Your task to perform on an android device: change alarm snooze length Image 0: 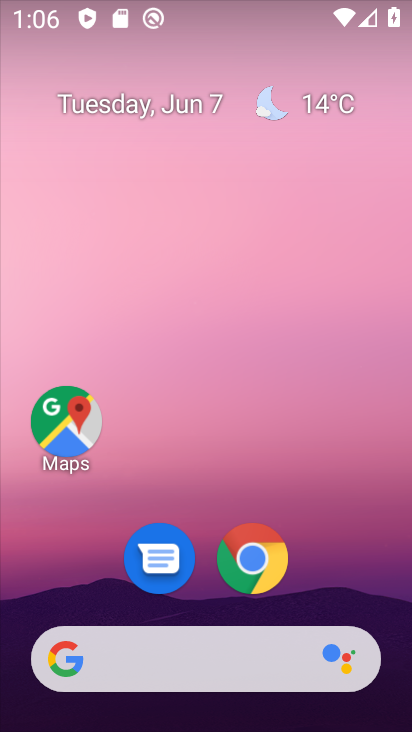
Step 0: drag from (79, 467) to (238, 215)
Your task to perform on an android device: change alarm snooze length Image 1: 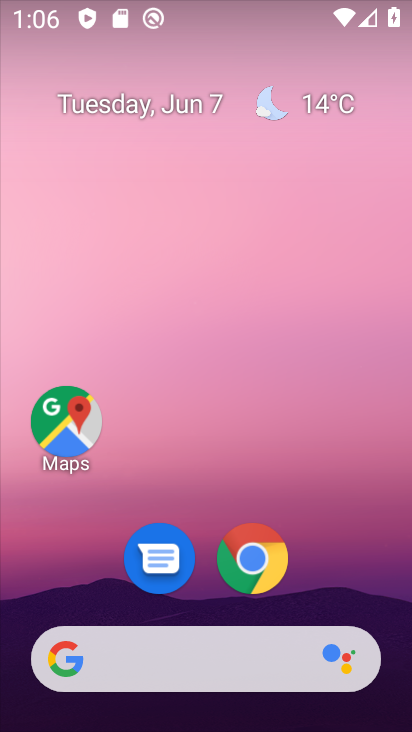
Step 1: drag from (79, 486) to (221, 162)
Your task to perform on an android device: change alarm snooze length Image 2: 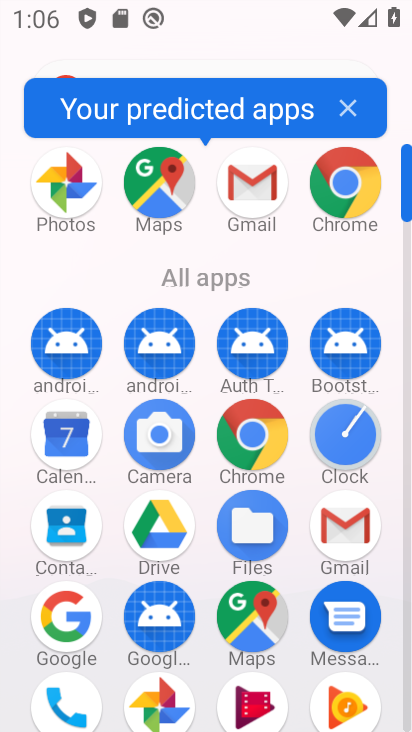
Step 2: click (329, 448)
Your task to perform on an android device: change alarm snooze length Image 3: 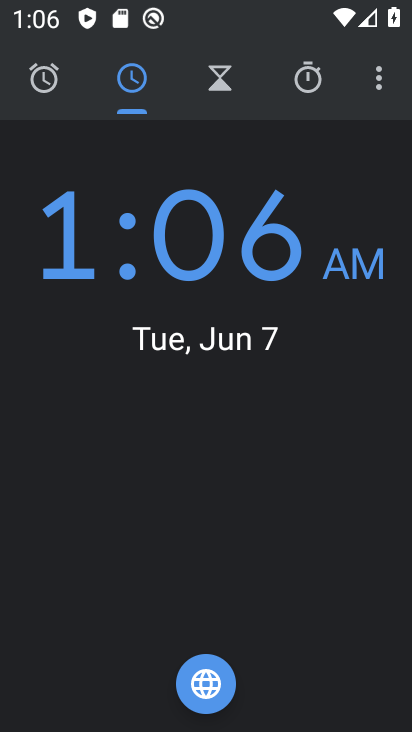
Step 3: click (372, 78)
Your task to perform on an android device: change alarm snooze length Image 4: 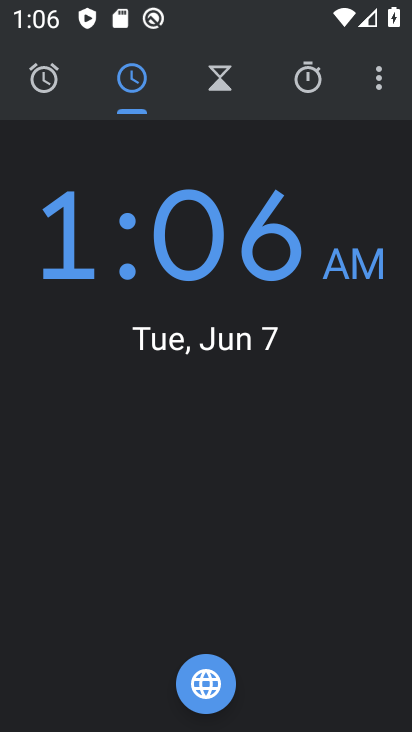
Step 4: click (379, 83)
Your task to perform on an android device: change alarm snooze length Image 5: 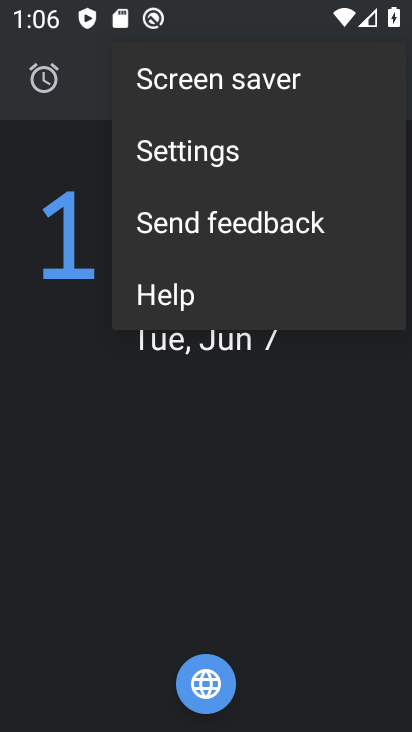
Step 5: click (273, 149)
Your task to perform on an android device: change alarm snooze length Image 6: 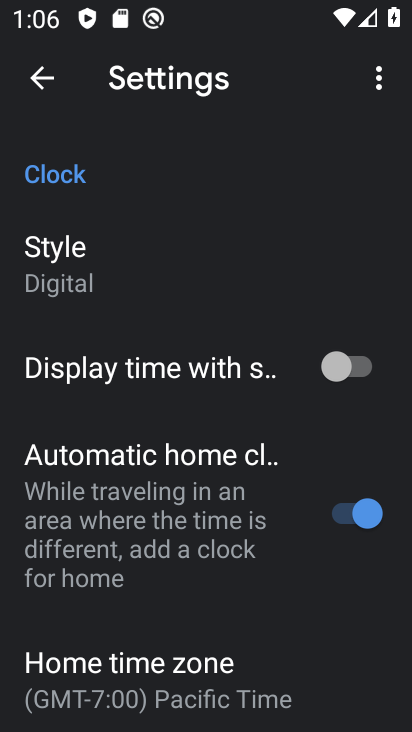
Step 6: drag from (43, 518) to (246, 159)
Your task to perform on an android device: change alarm snooze length Image 7: 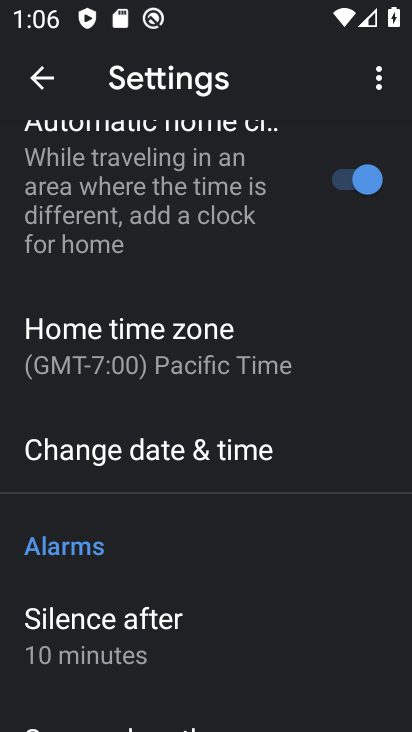
Step 7: drag from (36, 584) to (269, 278)
Your task to perform on an android device: change alarm snooze length Image 8: 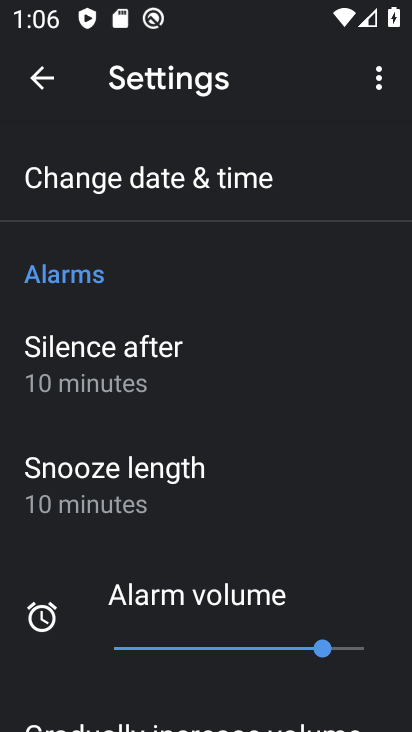
Step 8: click (87, 500)
Your task to perform on an android device: change alarm snooze length Image 9: 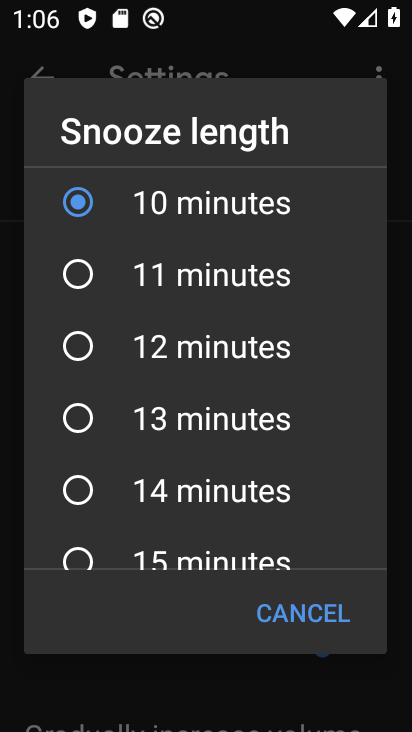
Step 9: click (79, 277)
Your task to perform on an android device: change alarm snooze length Image 10: 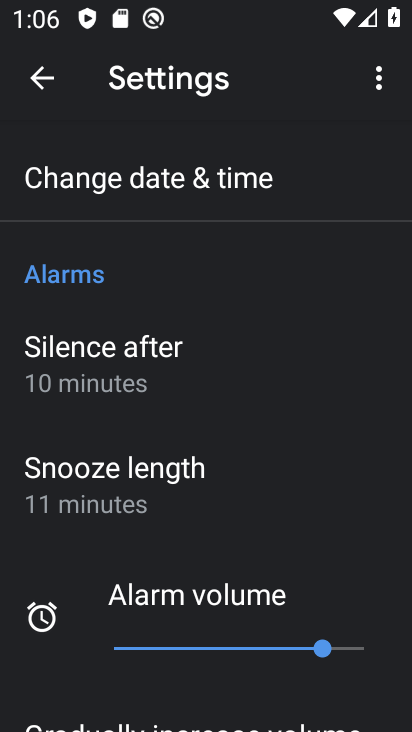
Step 10: task complete